Your task to perform on an android device: turn on sleep mode Image 0: 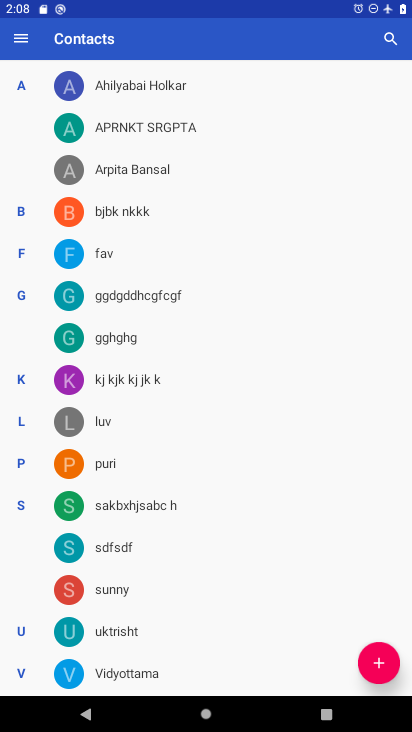
Step 0: press home button
Your task to perform on an android device: turn on sleep mode Image 1: 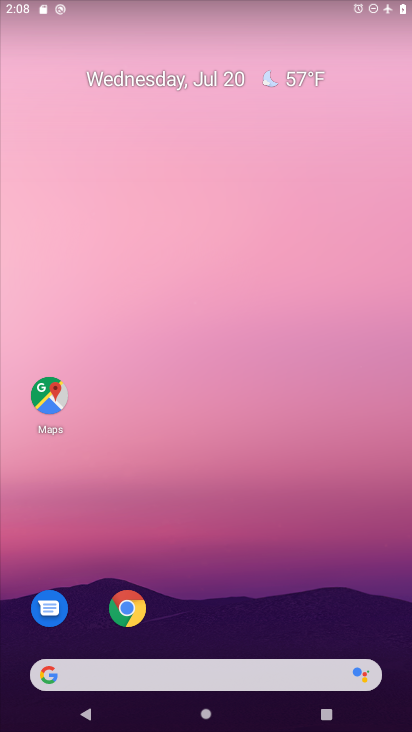
Step 1: drag from (249, 706) to (253, 128)
Your task to perform on an android device: turn on sleep mode Image 2: 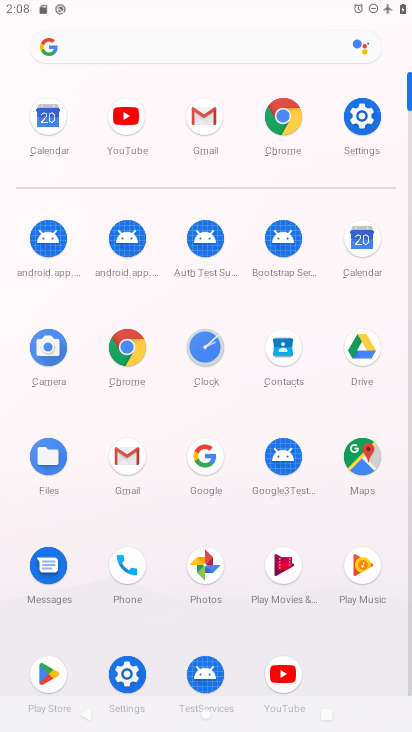
Step 2: click (348, 117)
Your task to perform on an android device: turn on sleep mode Image 3: 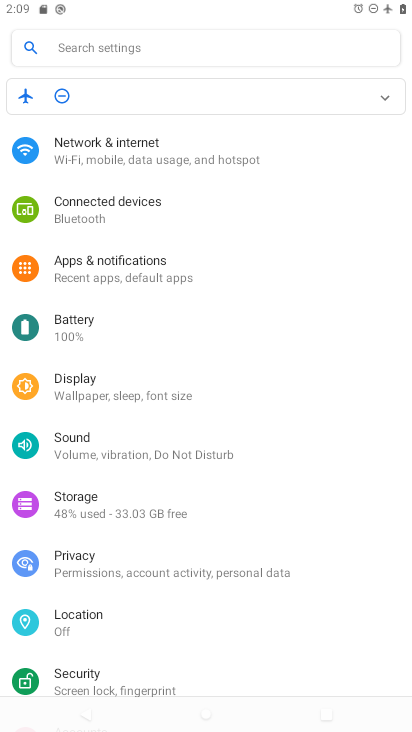
Step 3: click (216, 389)
Your task to perform on an android device: turn on sleep mode Image 4: 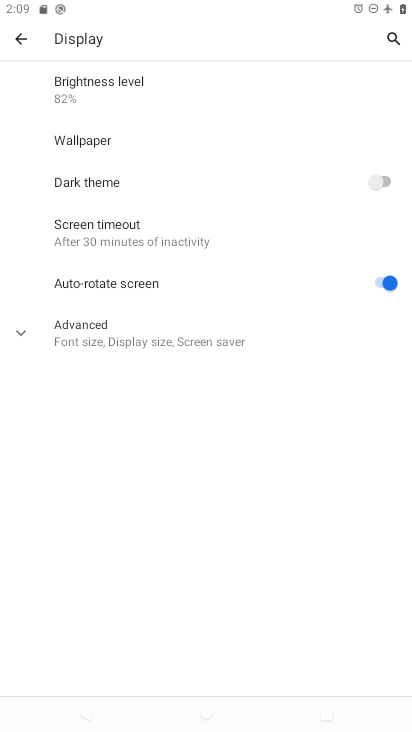
Step 4: task complete